Your task to perform on an android device: open device folders in google photos Image 0: 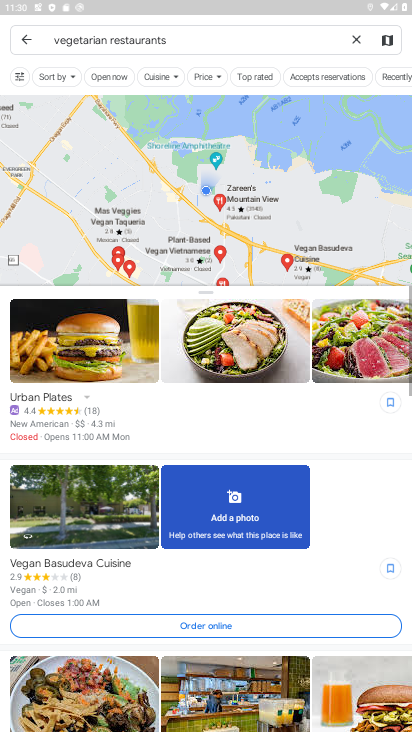
Step 0: click (137, 696)
Your task to perform on an android device: open device folders in google photos Image 1: 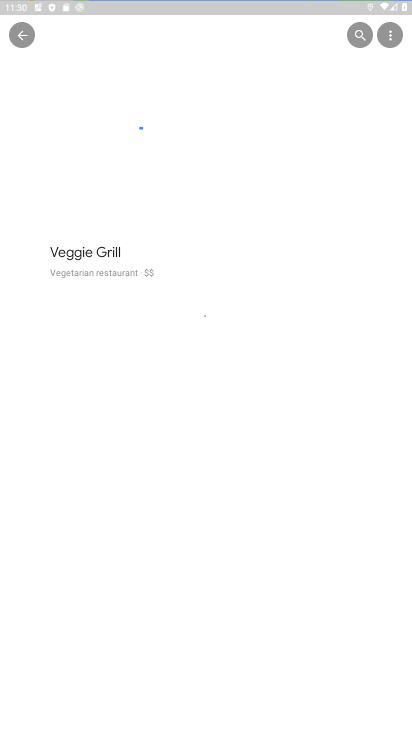
Step 1: press home button
Your task to perform on an android device: open device folders in google photos Image 2: 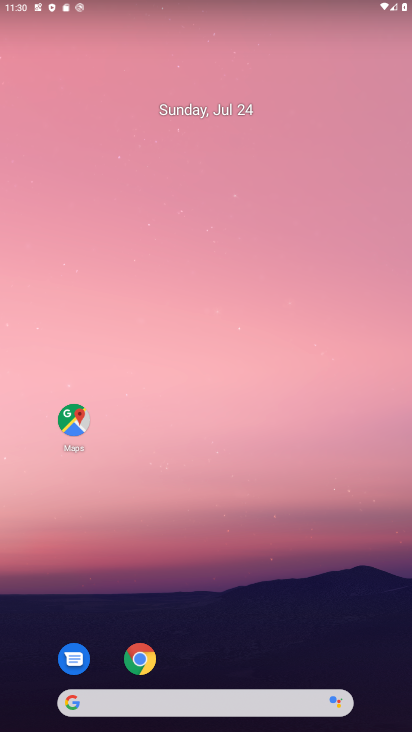
Step 2: drag from (7, 673) to (201, 2)
Your task to perform on an android device: open device folders in google photos Image 3: 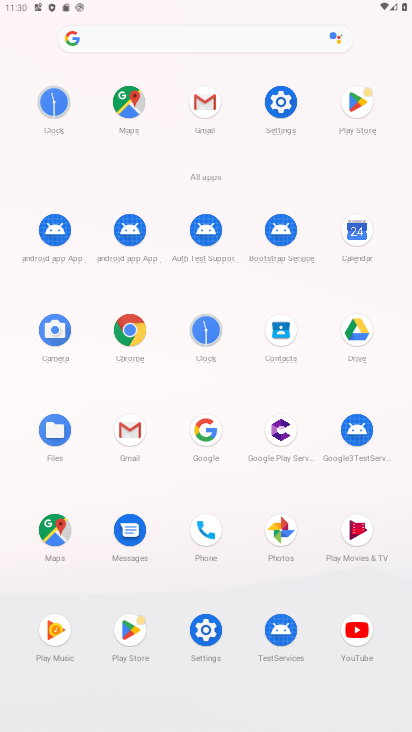
Step 3: click (281, 516)
Your task to perform on an android device: open device folders in google photos Image 4: 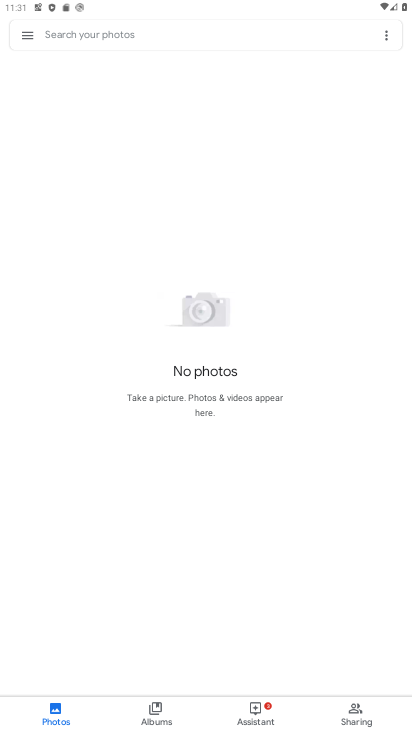
Step 4: click (20, 37)
Your task to perform on an android device: open device folders in google photos Image 5: 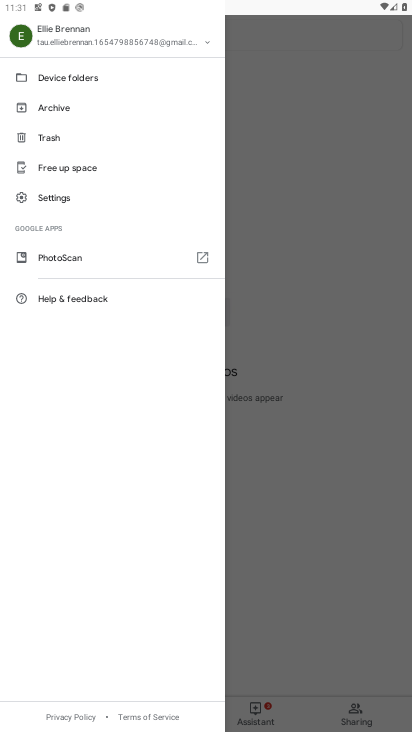
Step 5: click (67, 84)
Your task to perform on an android device: open device folders in google photos Image 6: 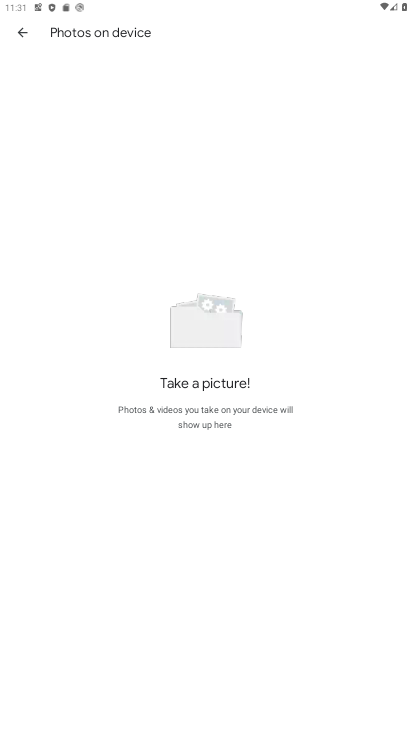
Step 6: task complete